Your task to perform on an android device: Open wifi settings Image 0: 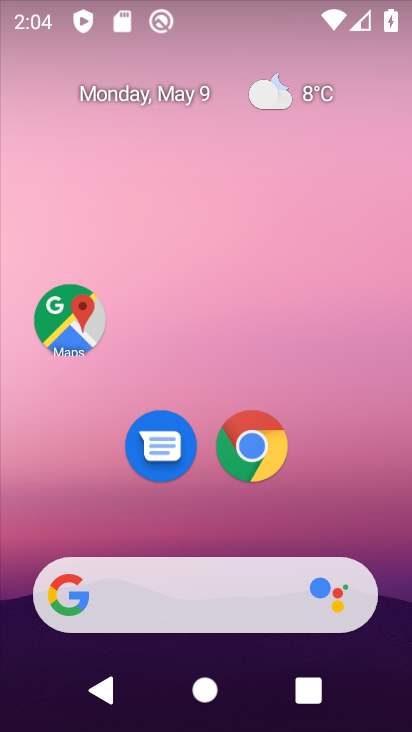
Step 0: drag from (289, 374) to (56, 95)
Your task to perform on an android device: Open wifi settings Image 1: 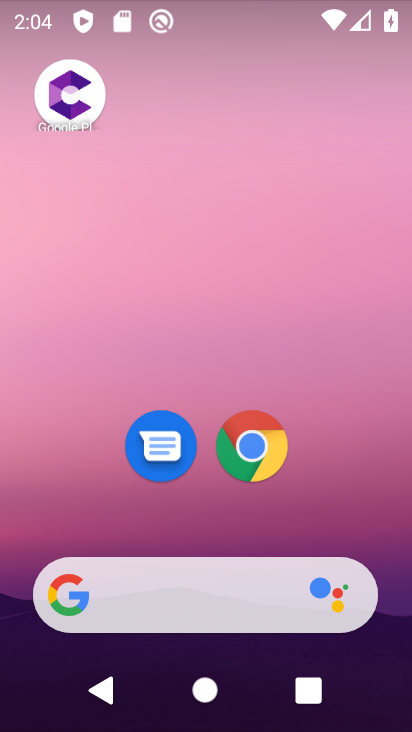
Step 1: drag from (318, 482) to (310, 127)
Your task to perform on an android device: Open wifi settings Image 2: 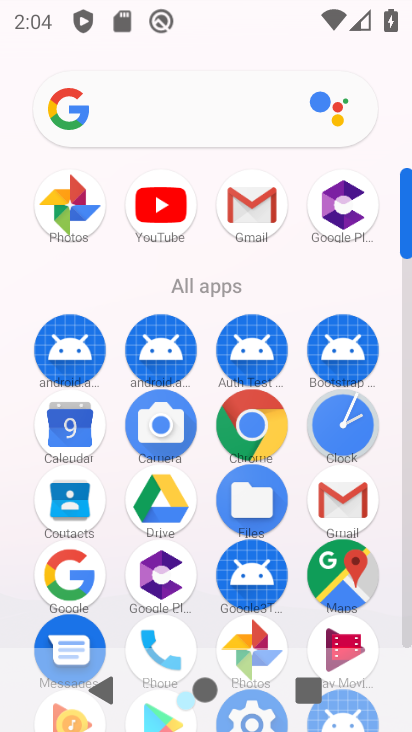
Step 2: drag from (290, 595) to (294, 225)
Your task to perform on an android device: Open wifi settings Image 3: 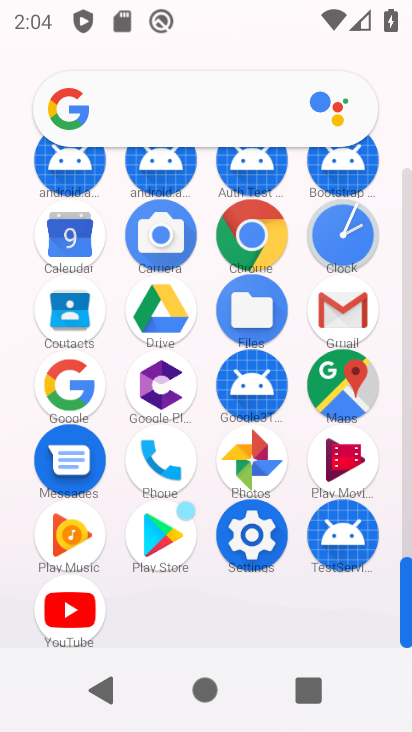
Step 3: click (250, 548)
Your task to perform on an android device: Open wifi settings Image 4: 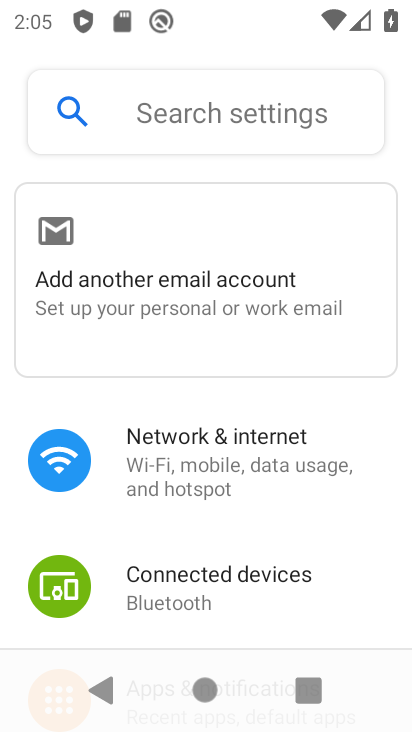
Step 4: click (181, 462)
Your task to perform on an android device: Open wifi settings Image 5: 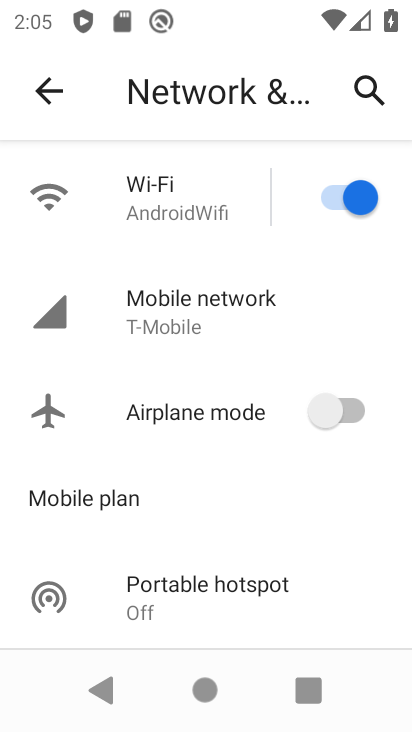
Step 5: click (154, 206)
Your task to perform on an android device: Open wifi settings Image 6: 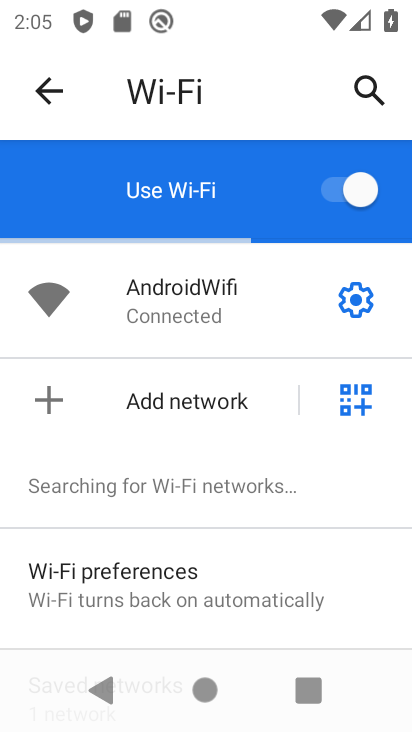
Step 6: task complete